Your task to perform on an android device: What's on my calendar today? Image 0: 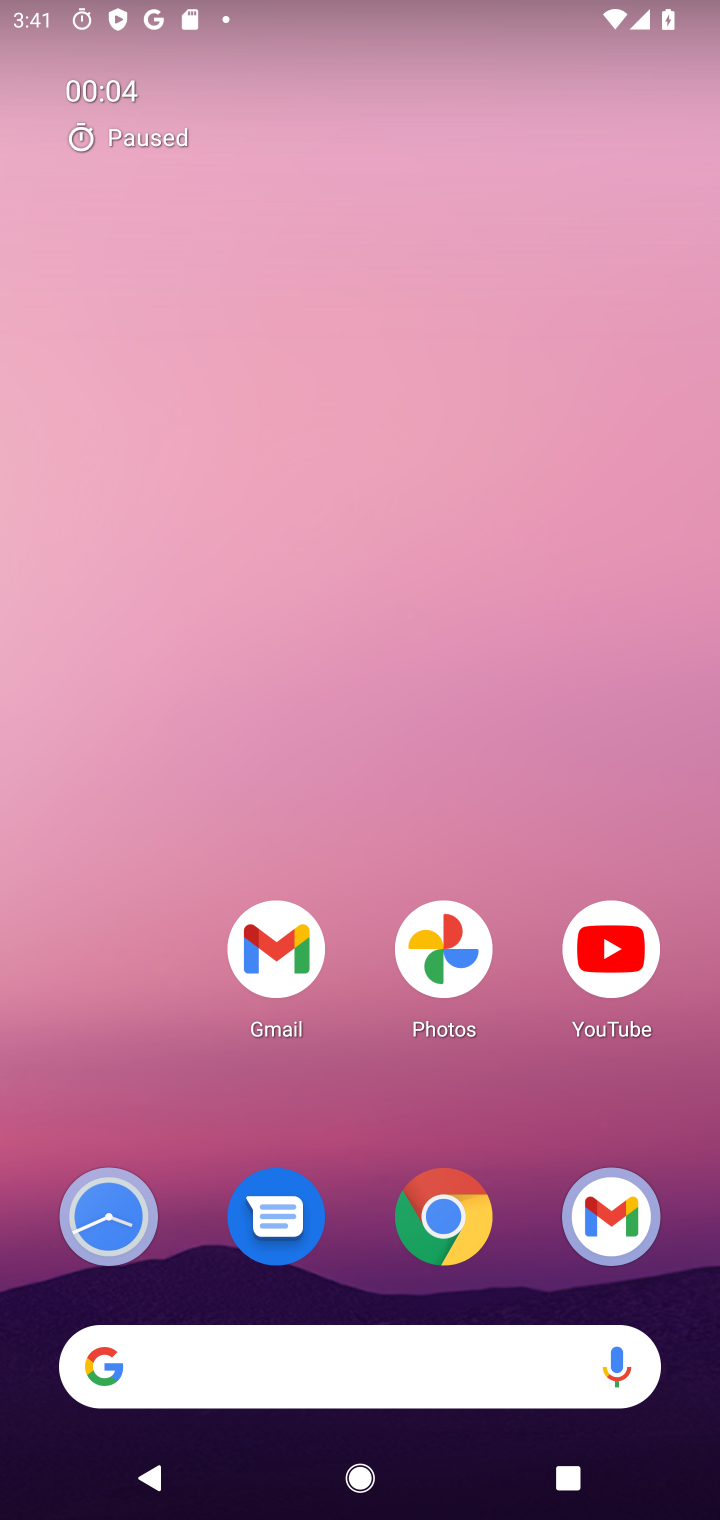
Step 0: drag from (147, 1004) to (359, 5)
Your task to perform on an android device: What's on my calendar today? Image 1: 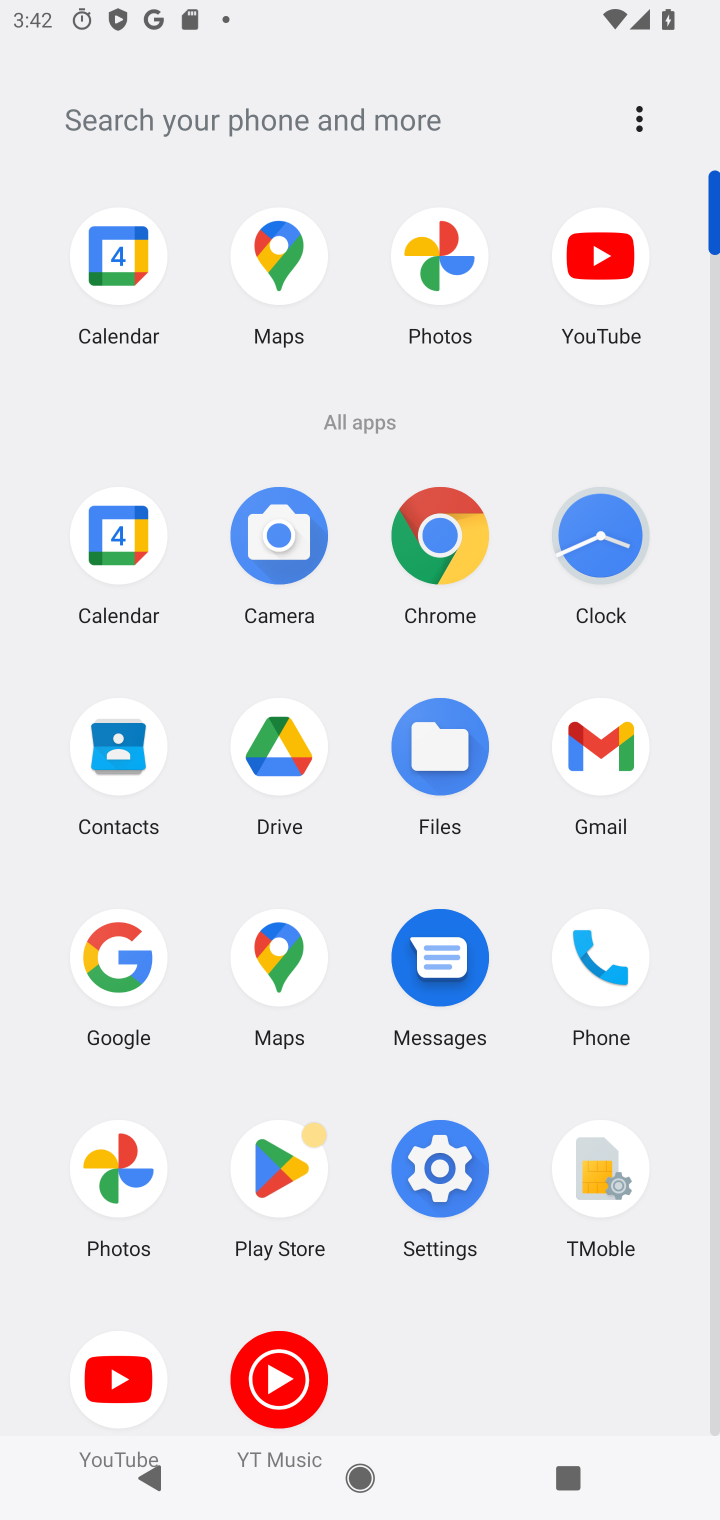
Step 1: click (125, 560)
Your task to perform on an android device: What's on my calendar today? Image 2: 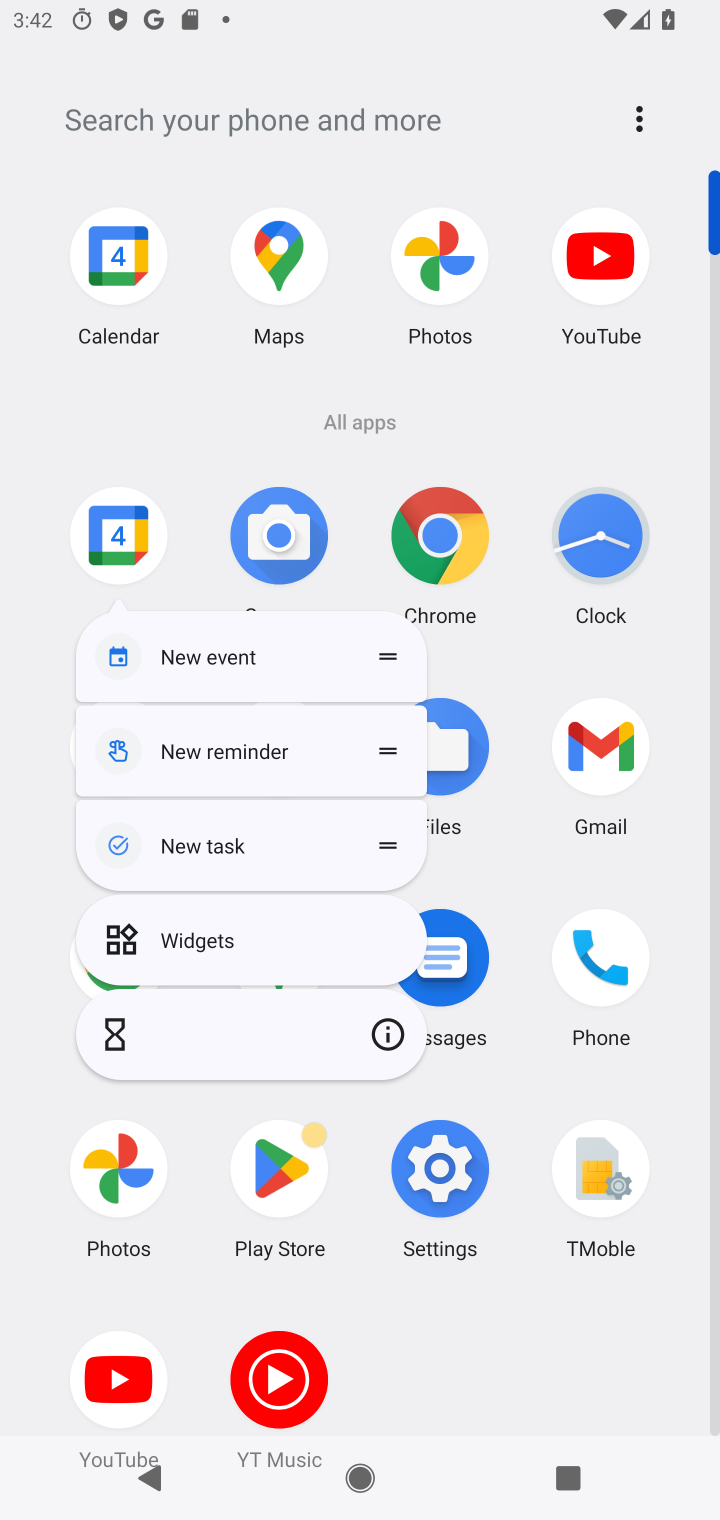
Step 2: click (101, 284)
Your task to perform on an android device: What's on my calendar today? Image 3: 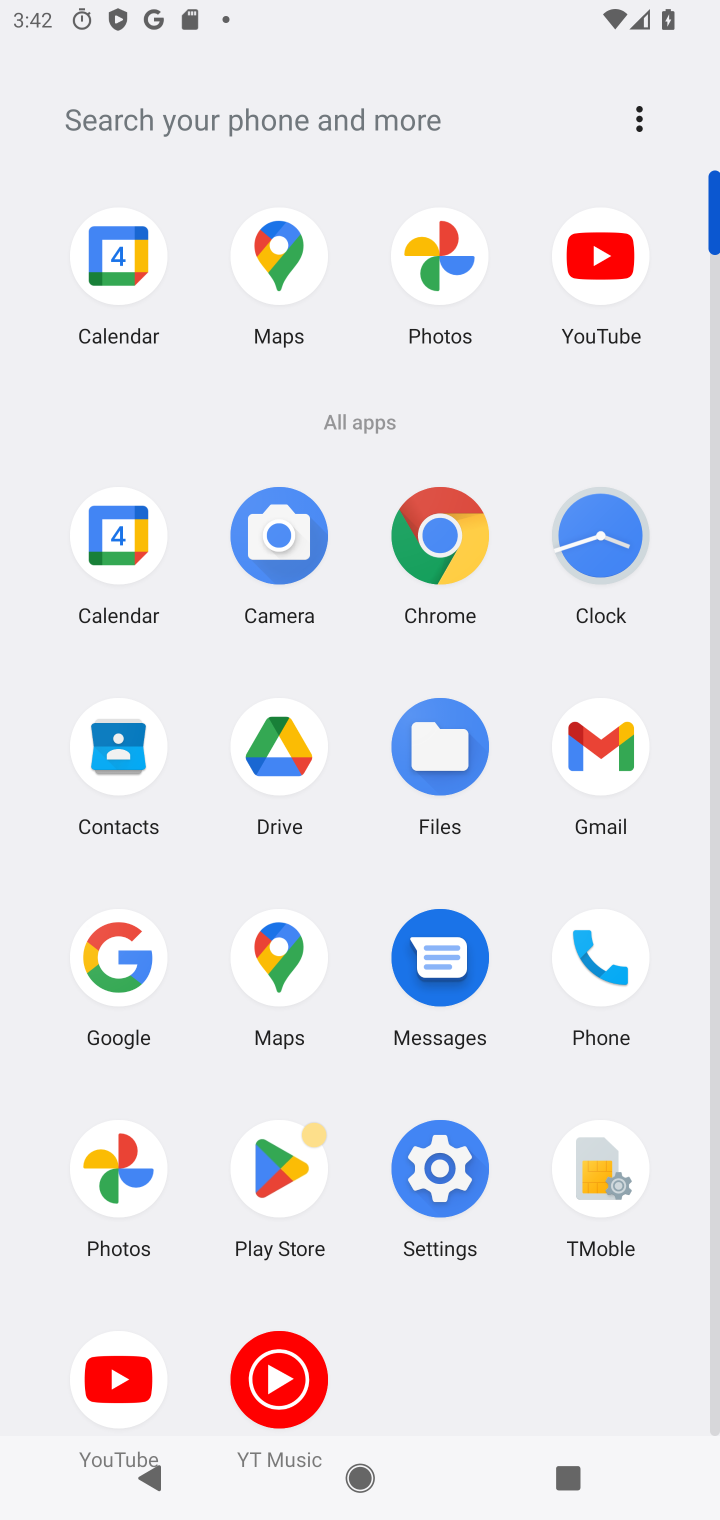
Step 3: click (127, 248)
Your task to perform on an android device: What's on my calendar today? Image 4: 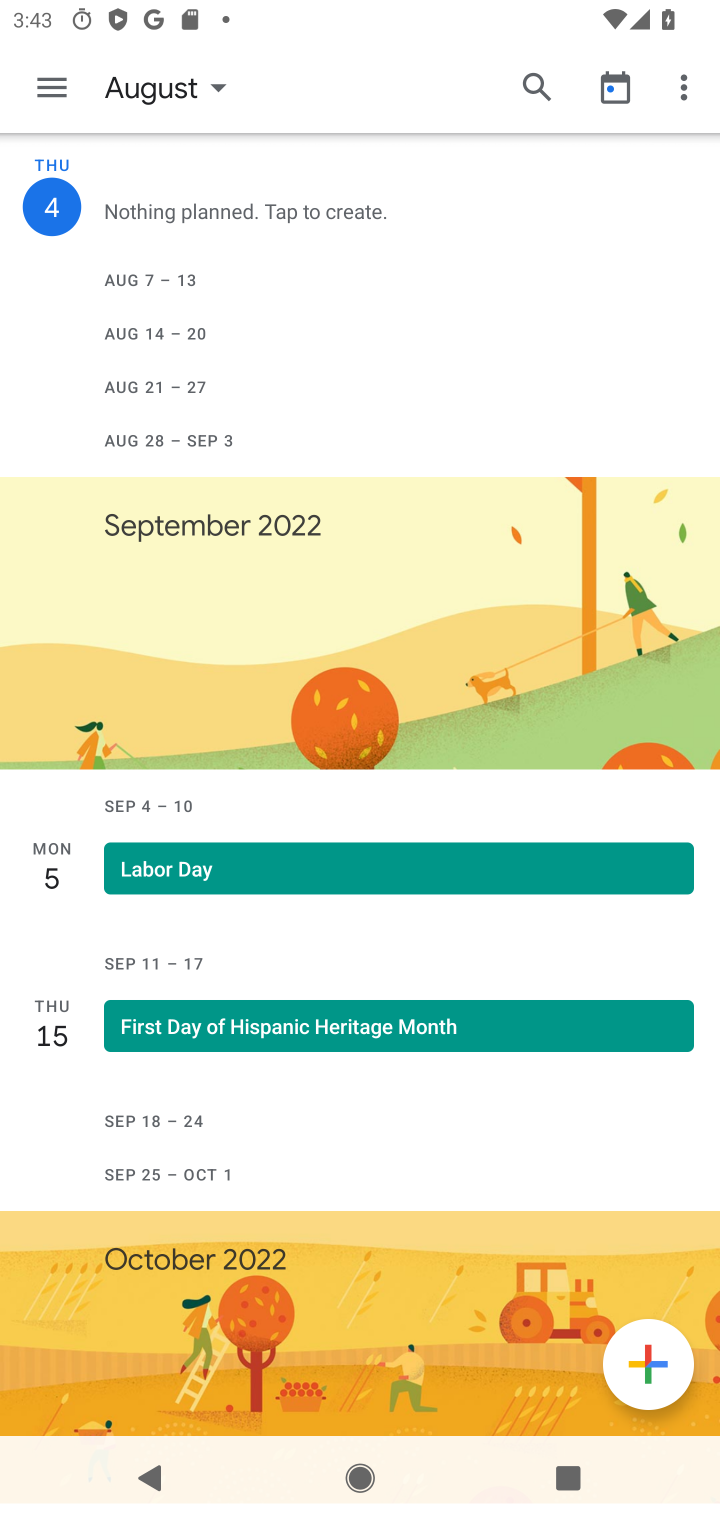
Step 4: task complete